Your task to perform on an android device: change your default location settings in chrome Image 0: 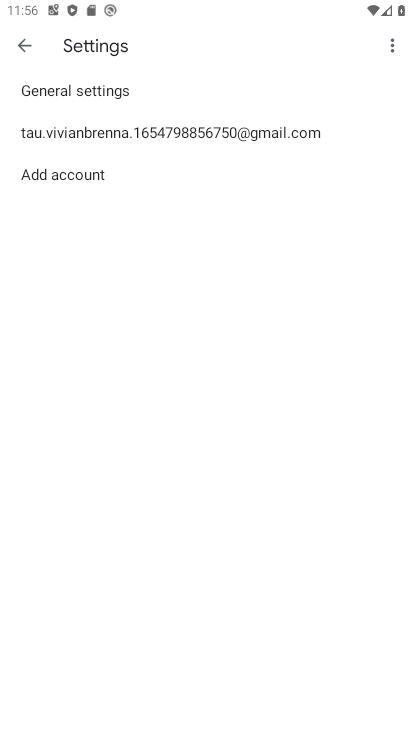
Step 0: press home button
Your task to perform on an android device: change your default location settings in chrome Image 1: 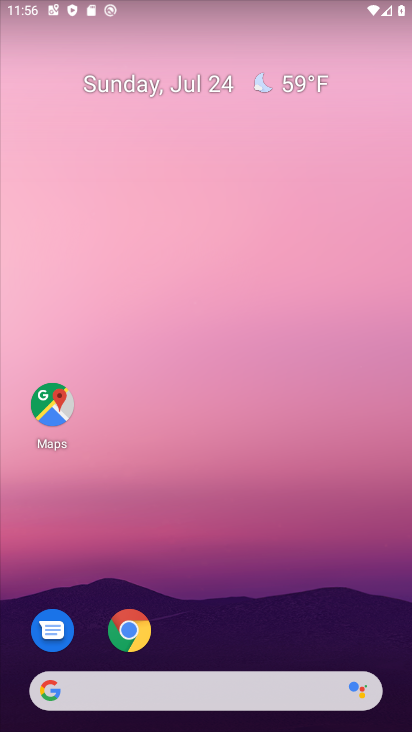
Step 1: click (125, 633)
Your task to perform on an android device: change your default location settings in chrome Image 2: 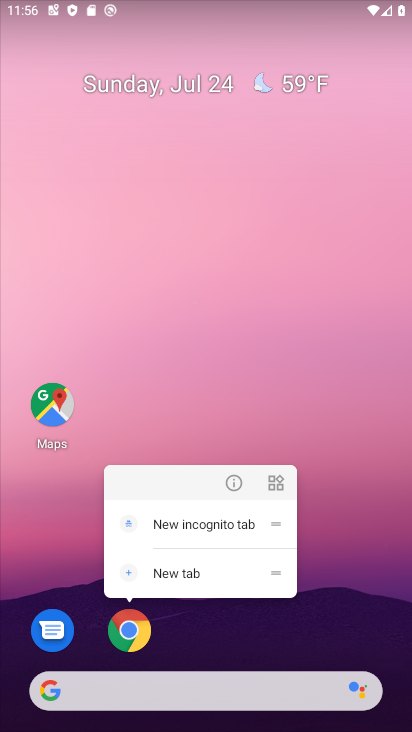
Step 2: click (125, 633)
Your task to perform on an android device: change your default location settings in chrome Image 3: 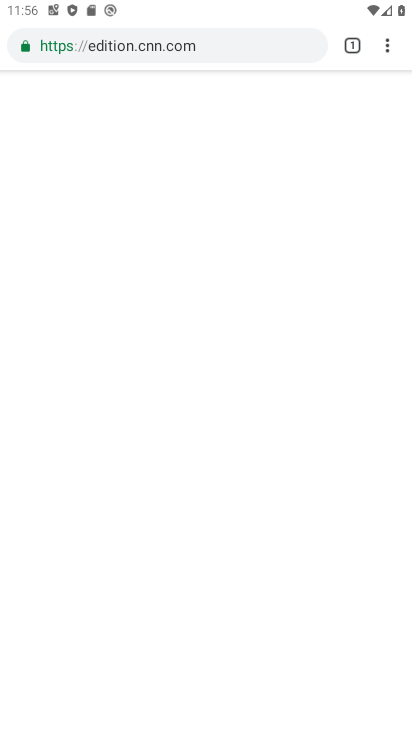
Step 3: click (384, 48)
Your task to perform on an android device: change your default location settings in chrome Image 4: 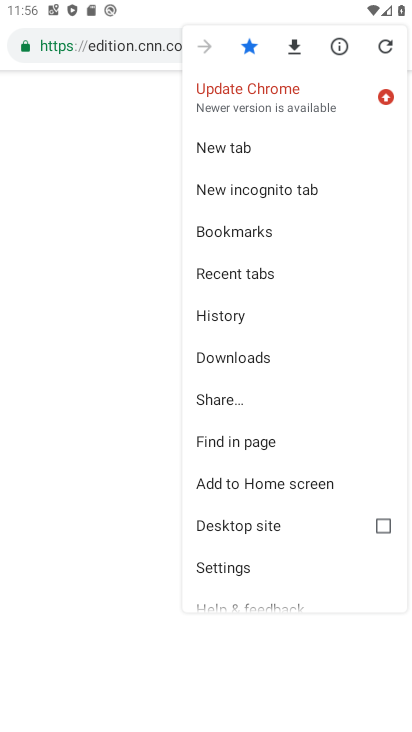
Step 4: click (225, 569)
Your task to perform on an android device: change your default location settings in chrome Image 5: 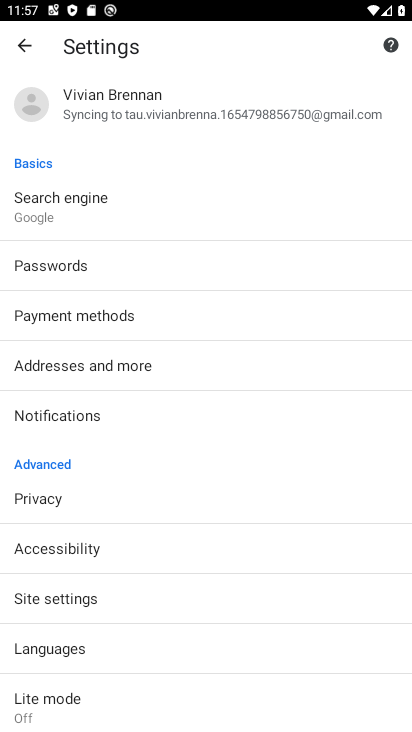
Step 5: click (55, 597)
Your task to perform on an android device: change your default location settings in chrome Image 6: 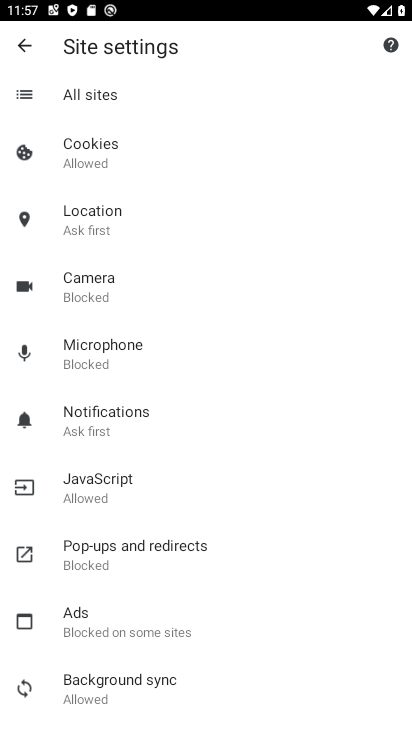
Step 6: click (102, 230)
Your task to perform on an android device: change your default location settings in chrome Image 7: 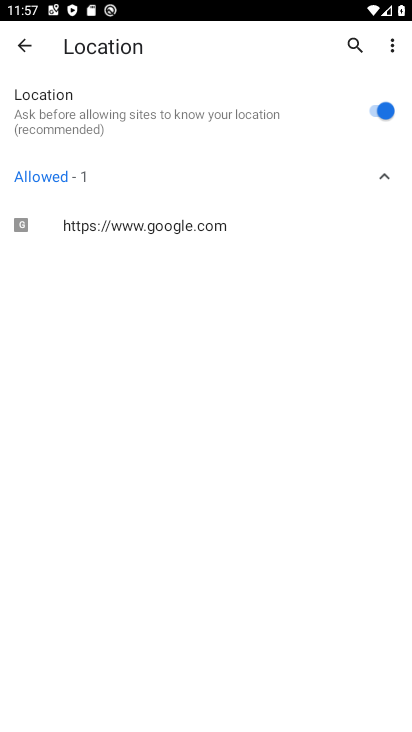
Step 7: click (376, 110)
Your task to perform on an android device: change your default location settings in chrome Image 8: 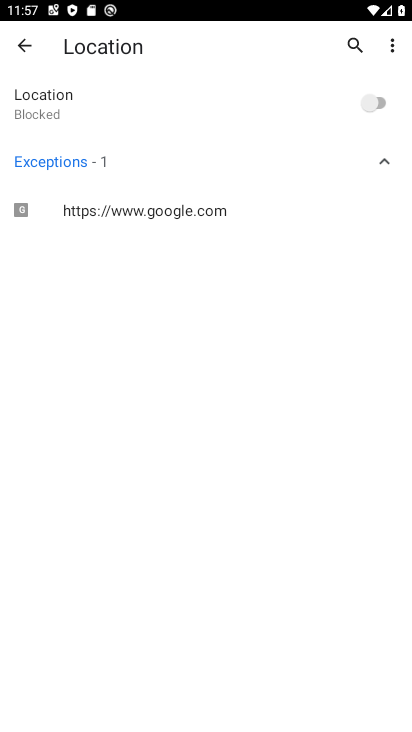
Step 8: task complete